Your task to perform on an android device: change your default location settings in chrome Image 0: 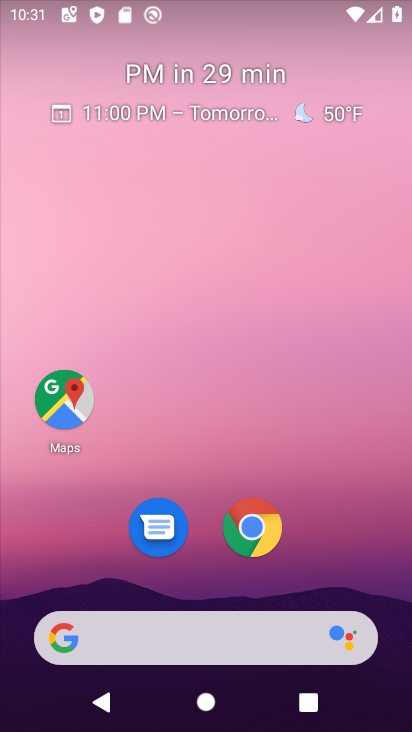
Step 0: press home button
Your task to perform on an android device: change your default location settings in chrome Image 1: 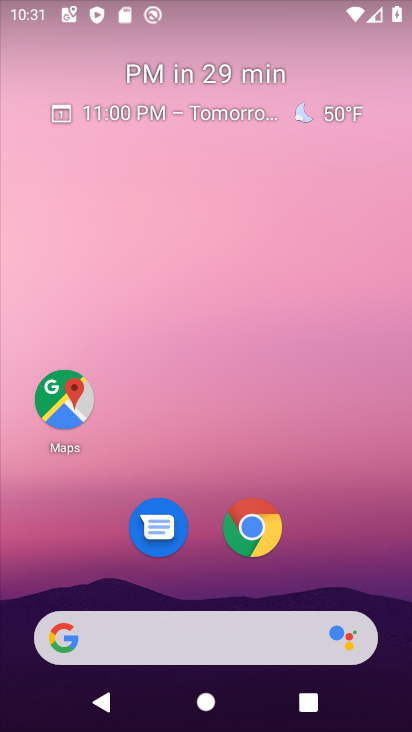
Step 1: drag from (353, 520) to (311, 17)
Your task to perform on an android device: change your default location settings in chrome Image 2: 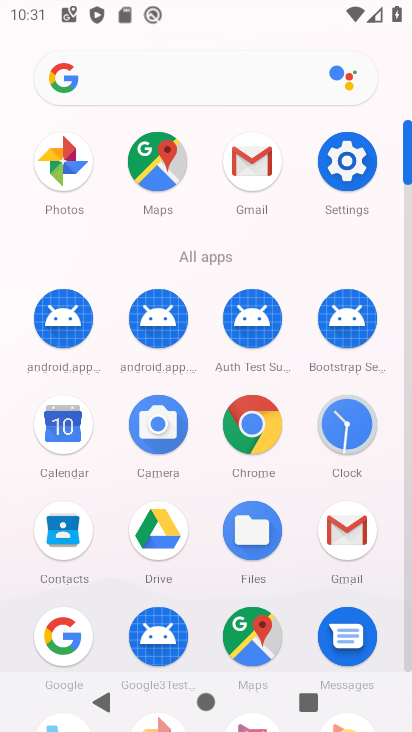
Step 2: click (254, 431)
Your task to perform on an android device: change your default location settings in chrome Image 3: 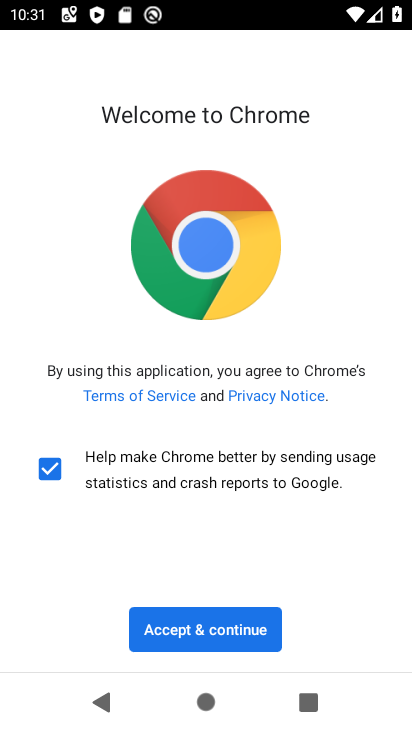
Step 3: click (181, 623)
Your task to perform on an android device: change your default location settings in chrome Image 4: 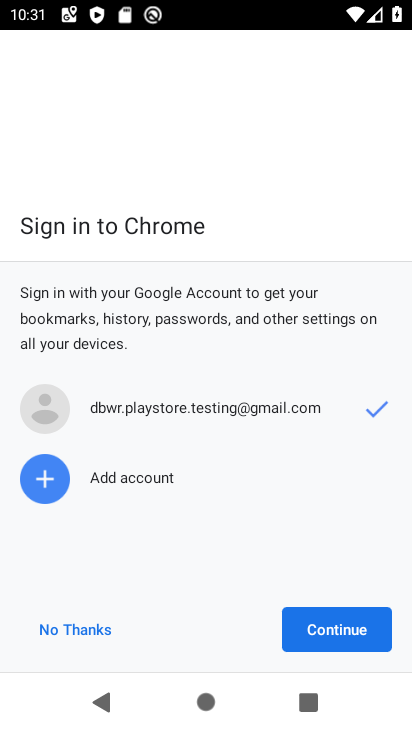
Step 4: click (361, 636)
Your task to perform on an android device: change your default location settings in chrome Image 5: 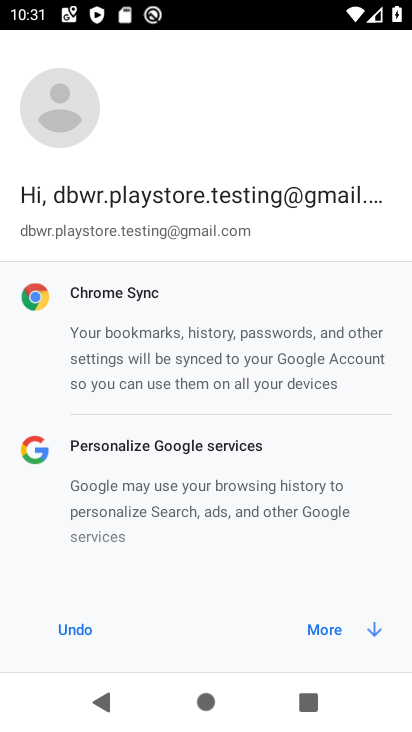
Step 5: click (355, 634)
Your task to perform on an android device: change your default location settings in chrome Image 6: 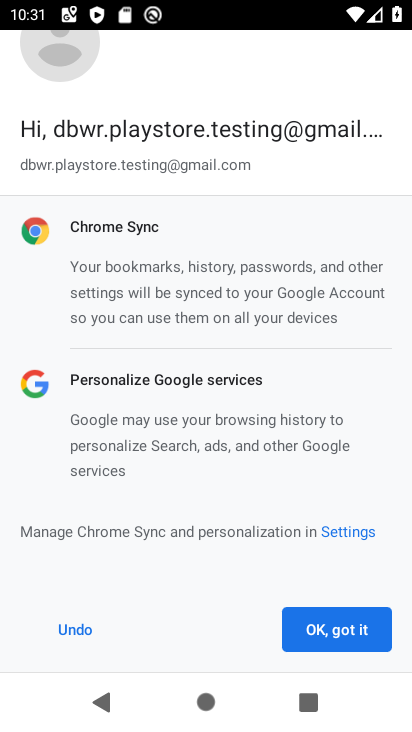
Step 6: click (354, 634)
Your task to perform on an android device: change your default location settings in chrome Image 7: 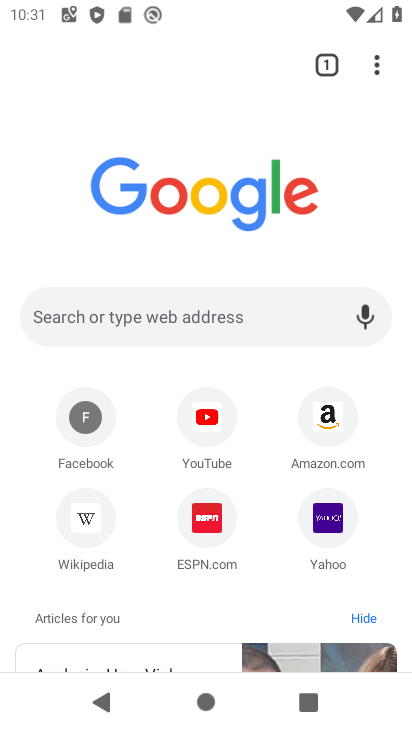
Step 7: drag from (373, 81) to (164, 561)
Your task to perform on an android device: change your default location settings in chrome Image 8: 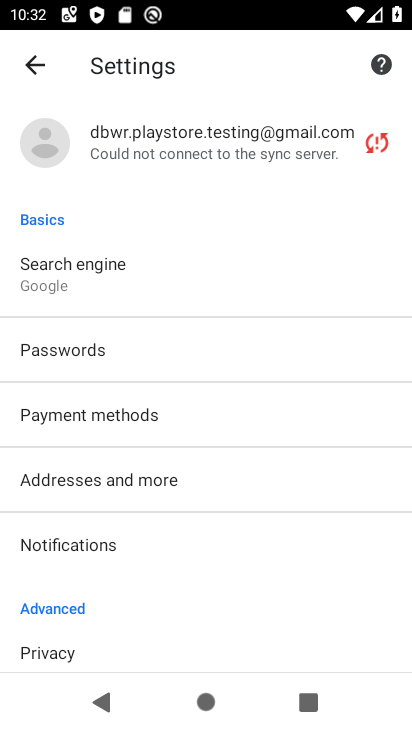
Step 8: drag from (241, 655) to (250, 304)
Your task to perform on an android device: change your default location settings in chrome Image 9: 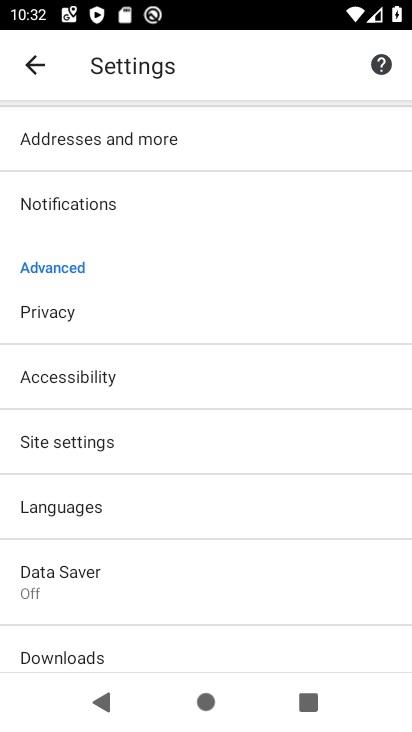
Step 9: drag from (231, 633) to (220, 344)
Your task to perform on an android device: change your default location settings in chrome Image 10: 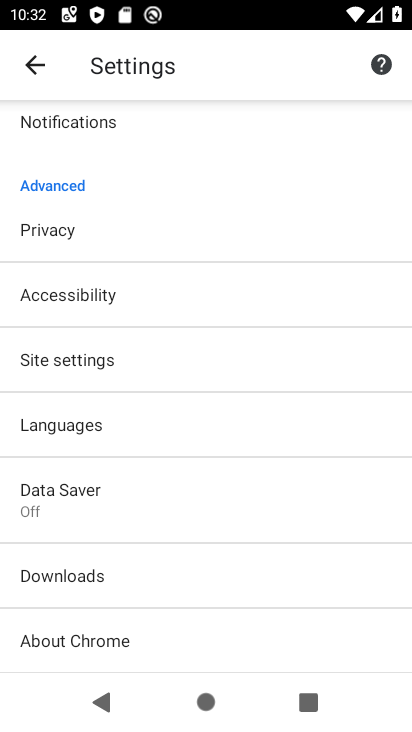
Step 10: click (120, 356)
Your task to perform on an android device: change your default location settings in chrome Image 11: 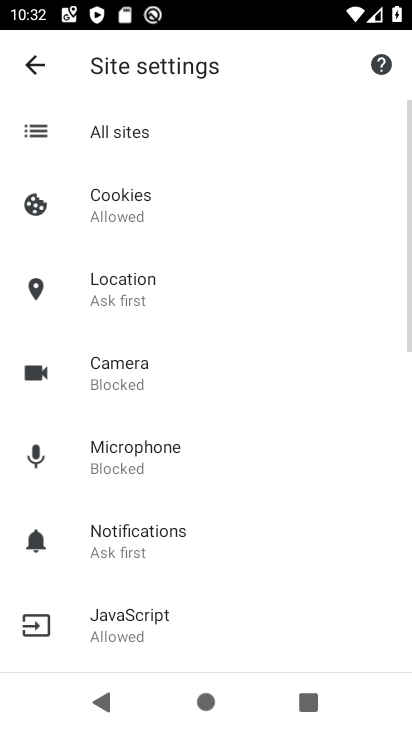
Step 11: click (158, 304)
Your task to perform on an android device: change your default location settings in chrome Image 12: 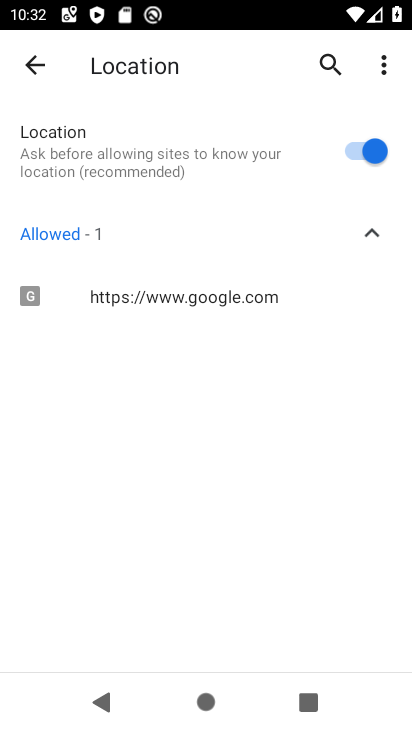
Step 12: task complete